Your task to perform on an android device: check battery use Image 0: 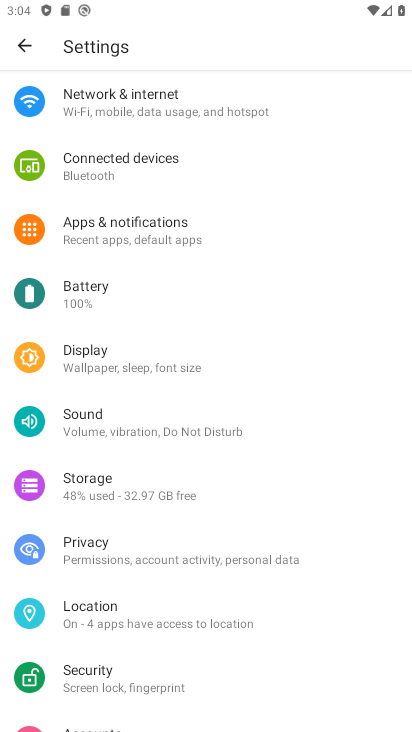
Step 0: click (80, 295)
Your task to perform on an android device: check battery use Image 1: 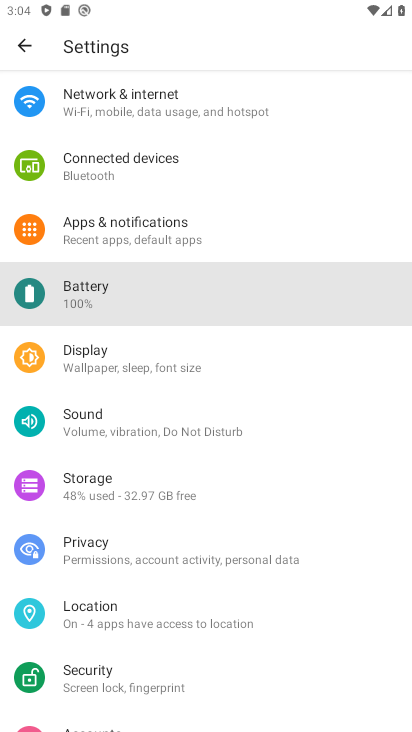
Step 1: click (80, 295)
Your task to perform on an android device: check battery use Image 2: 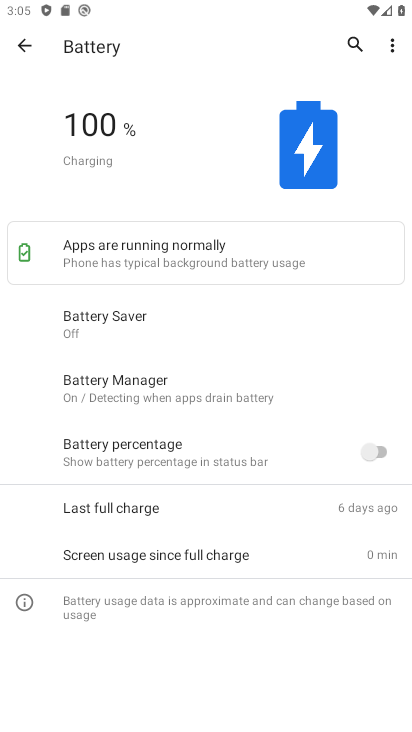
Step 2: task complete